Your task to perform on an android device: star an email in the gmail app Image 0: 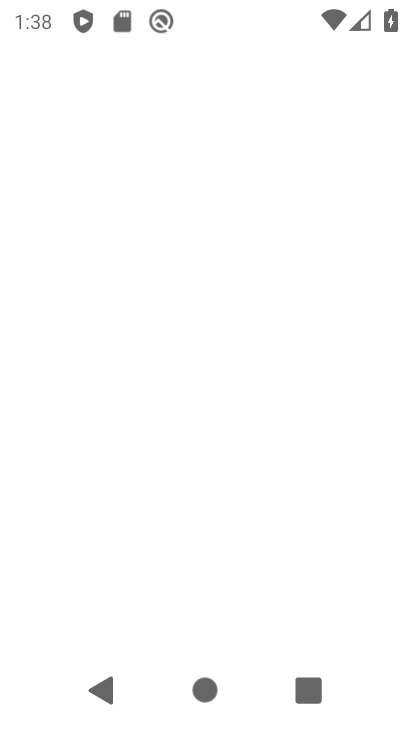
Step 0: press home button
Your task to perform on an android device: star an email in the gmail app Image 1: 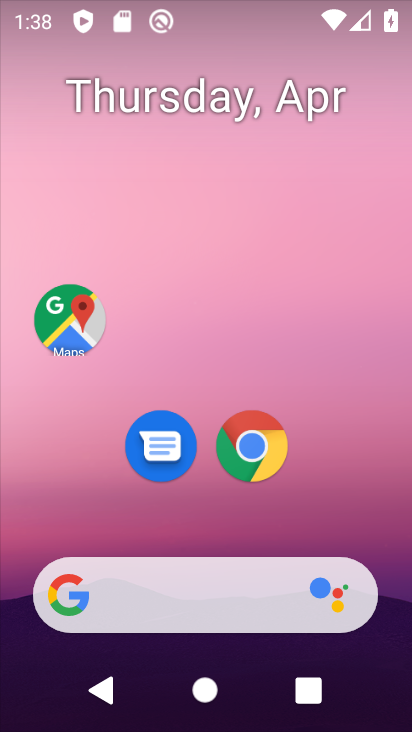
Step 1: drag from (276, 286) to (276, 215)
Your task to perform on an android device: star an email in the gmail app Image 2: 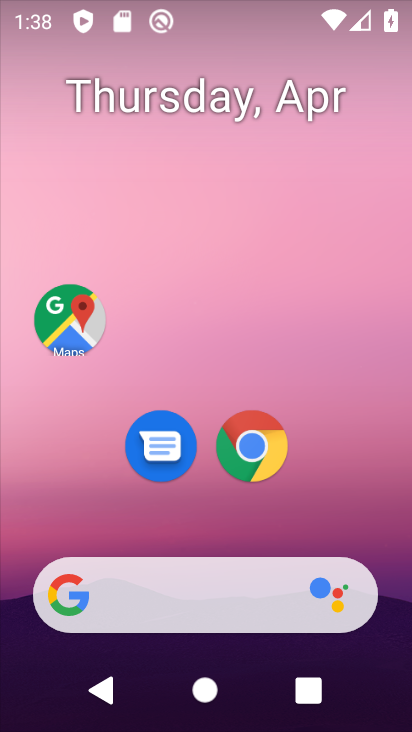
Step 2: click (316, 198)
Your task to perform on an android device: star an email in the gmail app Image 3: 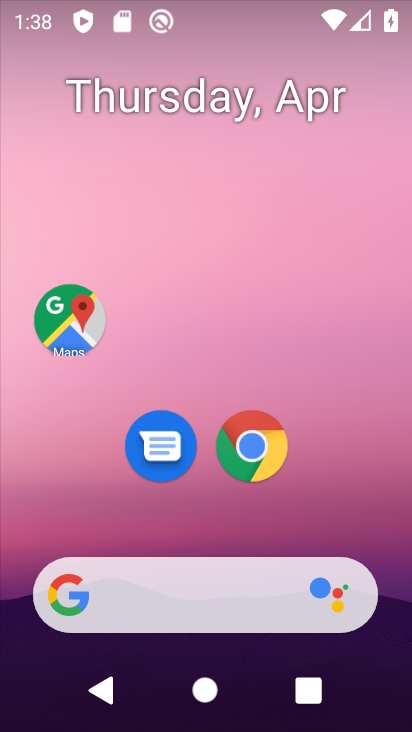
Step 3: drag from (306, 482) to (306, 240)
Your task to perform on an android device: star an email in the gmail app Image 4: 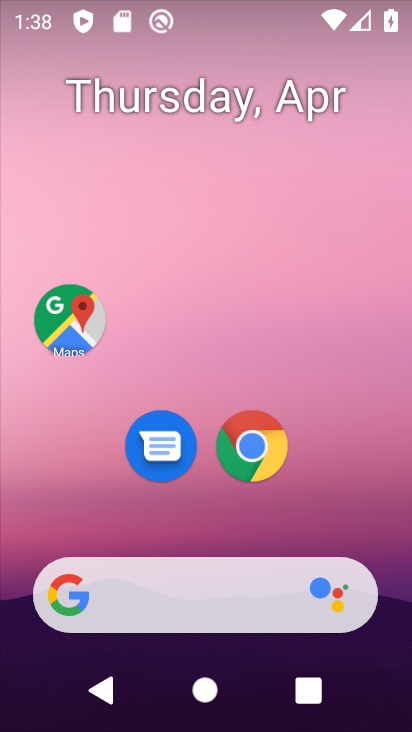
Step 4: click (303, 522)
Your task to perform on an android device: star an email in the gmail app Image 5: 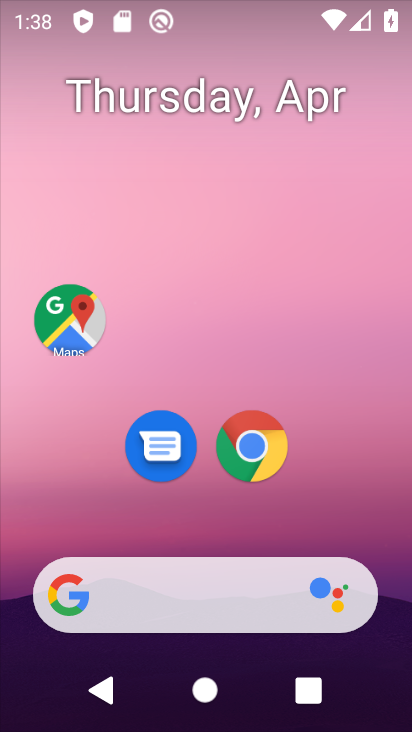
Step 5: drag from (352, 475) to (254, 5)
Your task to perform on an android device: star an email in the gmail app Image 6: 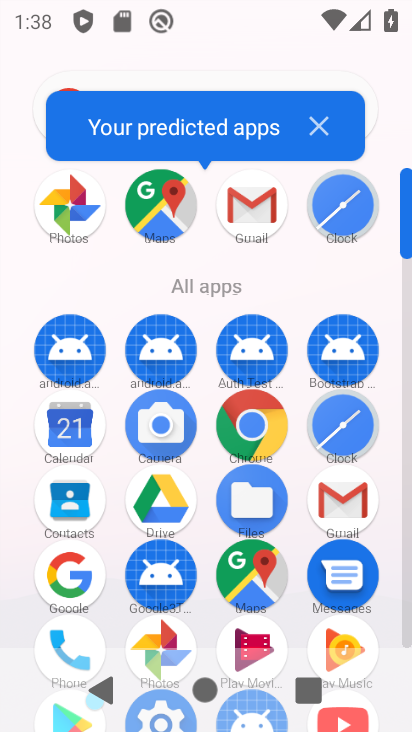
Step 6: click (264, 222)
Your task to perform on an android device: star an email in the gmail app Image 7: 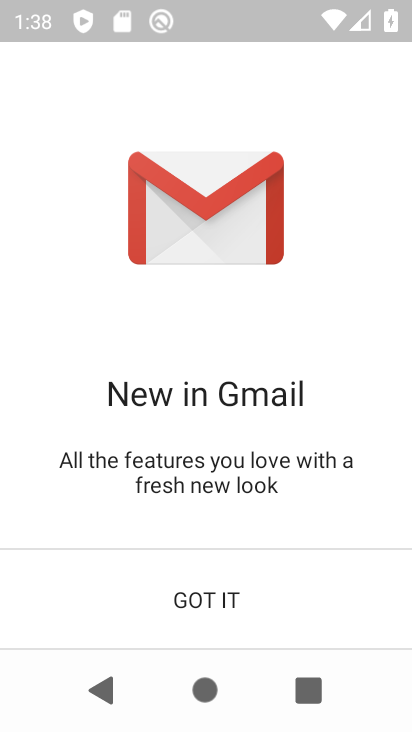
Step 7: click (183, 592)
Your task to perform on an android device: star an email in the gmail app Image 8: 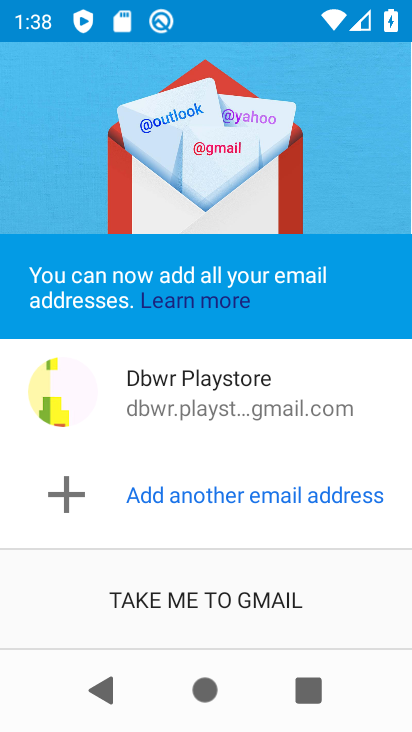
Step 8: click (218, 584)
Your task to perform on an android device: star an email in the gmail app Image 9: 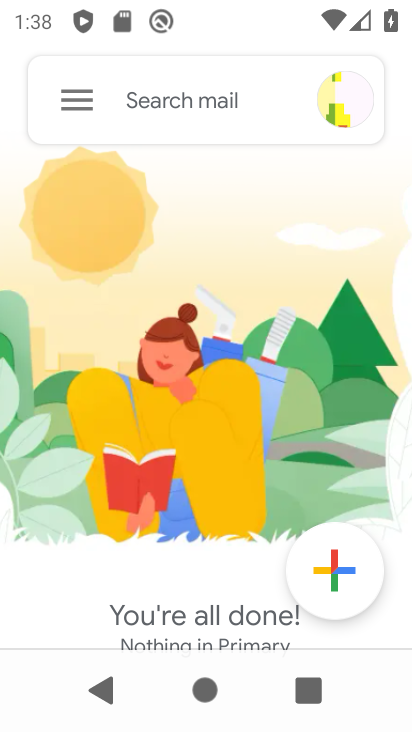
Step 9: task complete